Your task to perform on an android device: Turn off the flashlight Image 0: 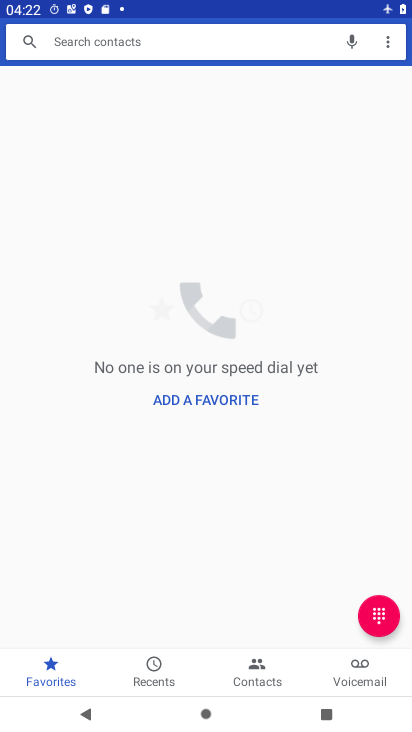
Step 0: press home button
Your task to perform on an android device: Turn off the flashlight Image 1: 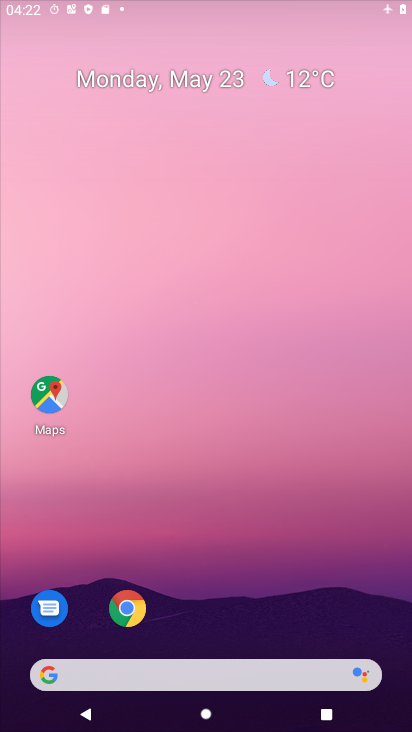
Step 1: task complete